Your task to perform on an android device: change the clock display to digital Image 0: 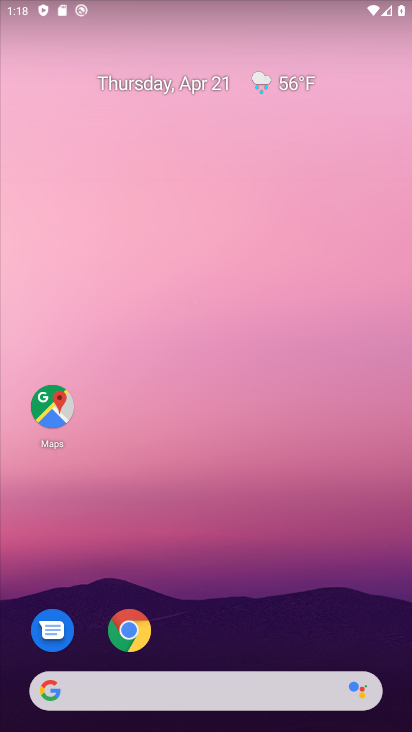
Step 0: drag from (317, 506) to (304, 243)
Your task to perform on an android device: change the clock display to digital Image 1: 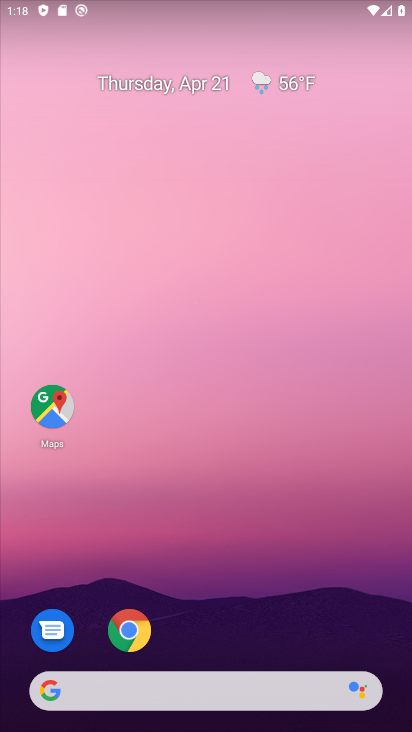
Step 1: drag from (240, 635) to (236, 175)
Your task to perform on an android device: change the clock display to digital Image 2: 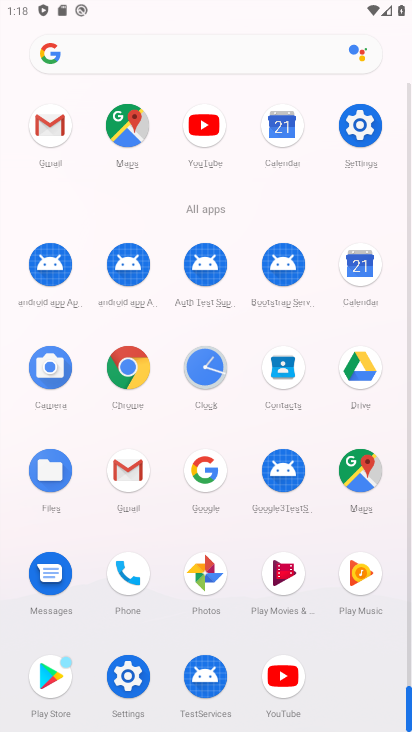
Step 2: click (204, 385)
Your task to perform on an android device: change the clock display to digital Image 3: 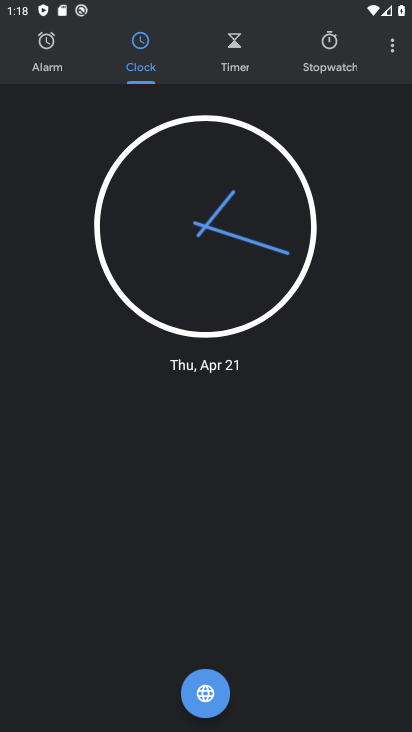
Step 3: click (391, 42)
Your task to perform on an android device: change the clock display to digital Image 4: 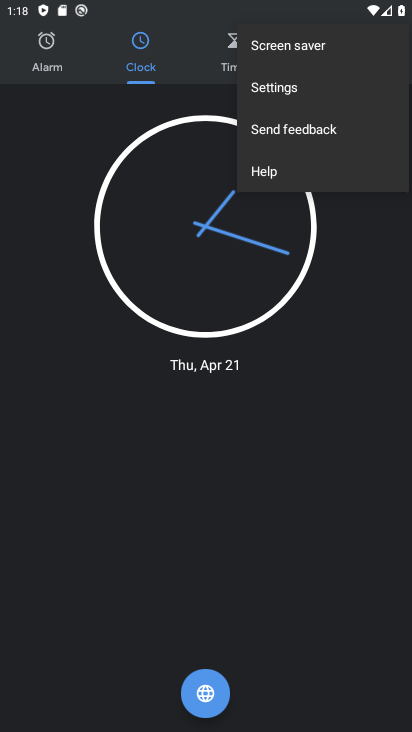
Step 4: click (290, 97)
Your task to perform on an android device: change the clock display to digital Image 5: 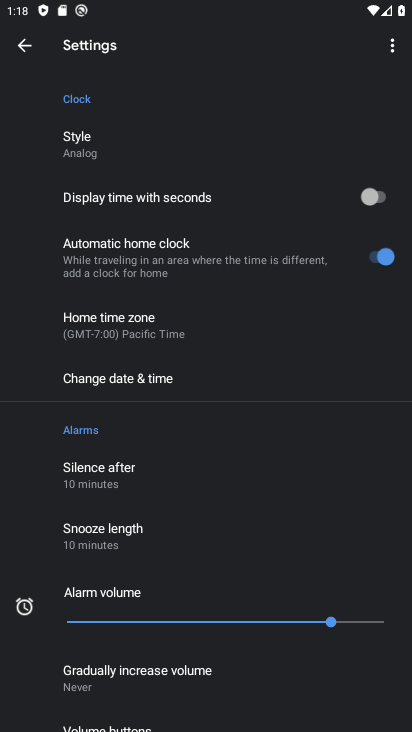
Step 5: click (181, 145)
Your task to perform on an android device: change the clock display to digital Image 6: 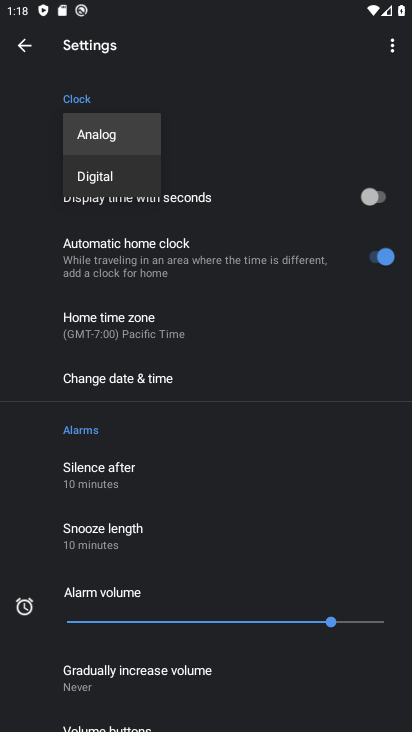
Step 6: click (89, 180)
Your task to perform on an android device: change the clock display to digital Image 7: 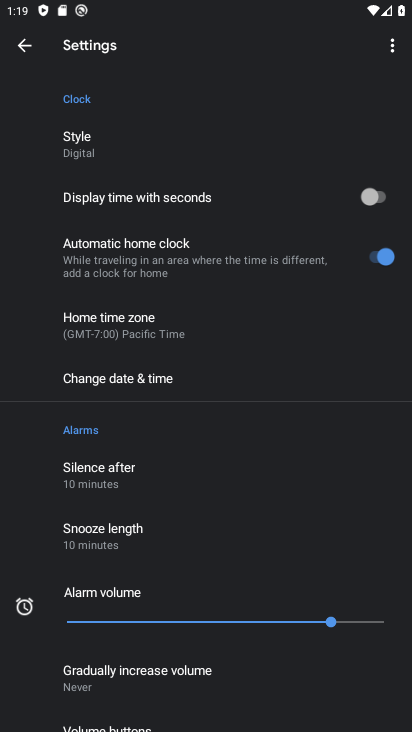
Step 7: task complete